Your task to perform on an android device: toggle airplane mode Image 0: 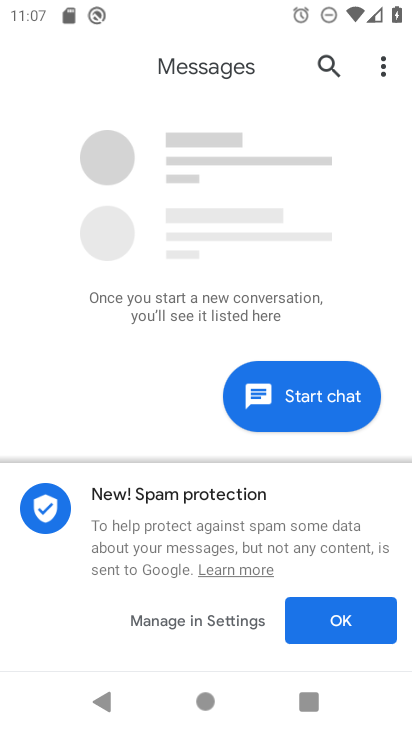
Step 0: press home button
Your task to perform on an android device: toggle airplane mode Image 1: 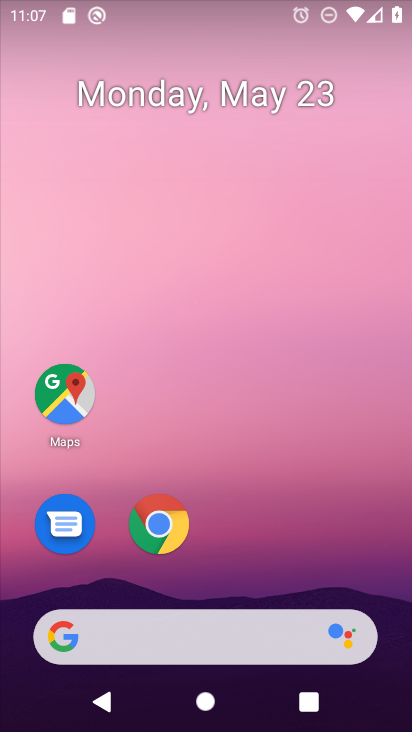
Step 1: drag from (198, 587) to (199, 190)
Your task to perform on an android device: toggle airplane mode Image 2: 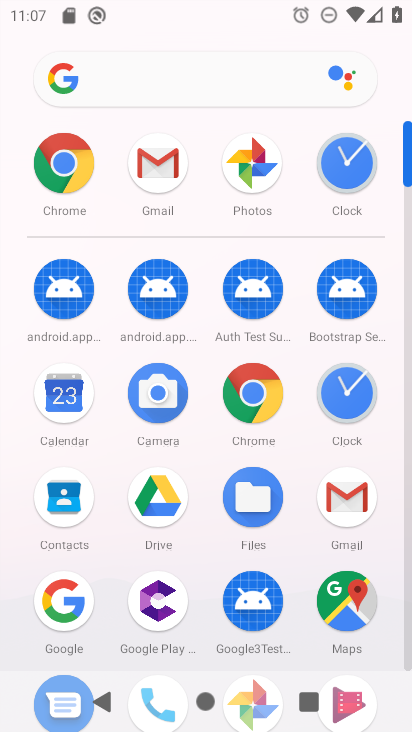
Step 2: drag from (186, 563) to (226, 276)
Your task to perform on an android device: toggle airplane mode Image 3: 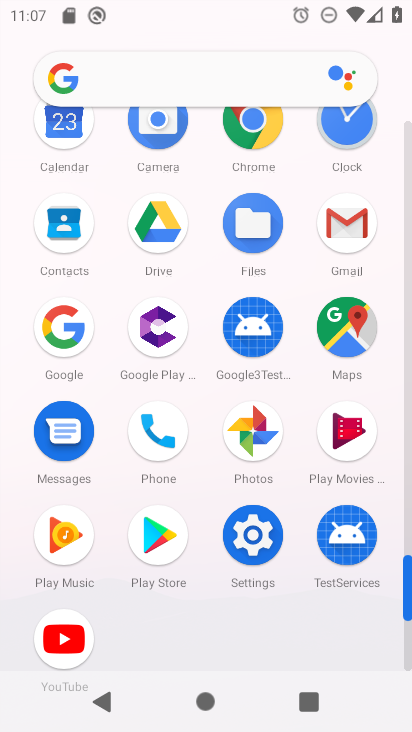
Step 3: click (253, 523)
Your task to perform on an android device: toggle airplane mode Image 4: 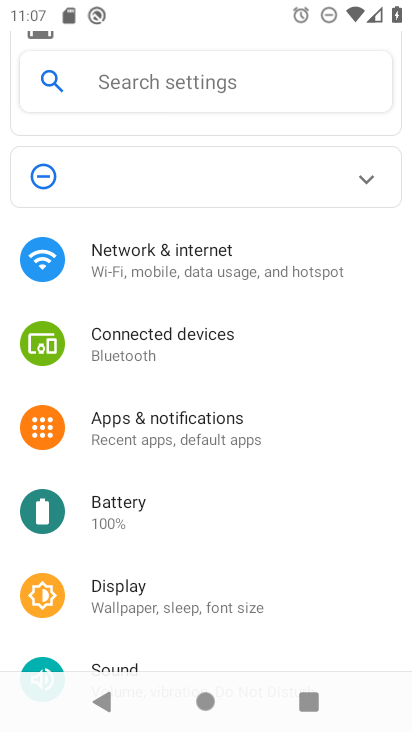
Step 4: click (156, 280)
Your task to perform on an android device: toggle airplane mode Image 5: 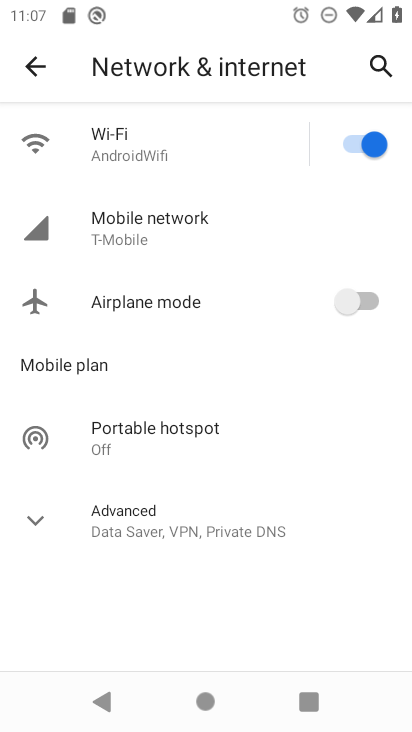
Step 5: click (359, 298)
Your task to perform on an android device: toggle airplane mode Image 6: 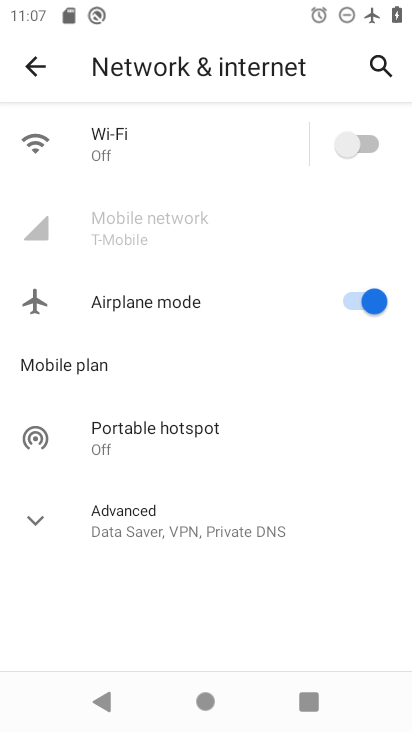
Step 6: task complete